Your task to perform on an android device: Open Reddit.com Image 0: 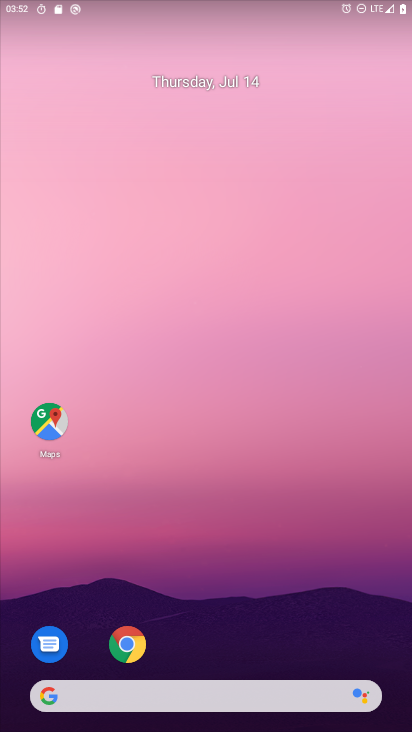
Step 0: drag from (284, 565) to (267, 144)
Your task to perform on an android device: Open Reddit.com Image 1: 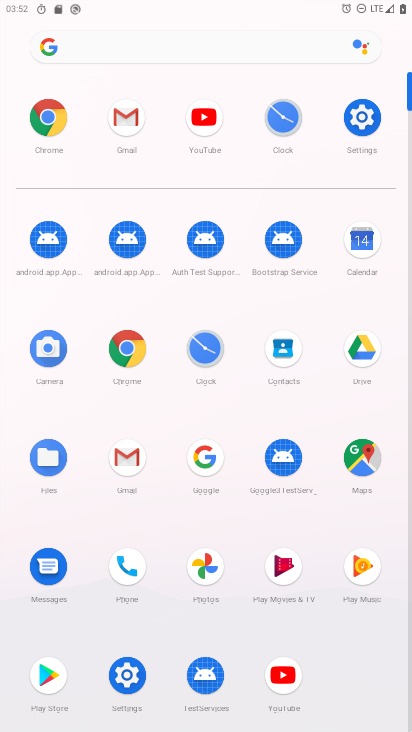
Step 1: click (51, 118)
Your task to perform on an android device: Open Reddit.com Image 2: 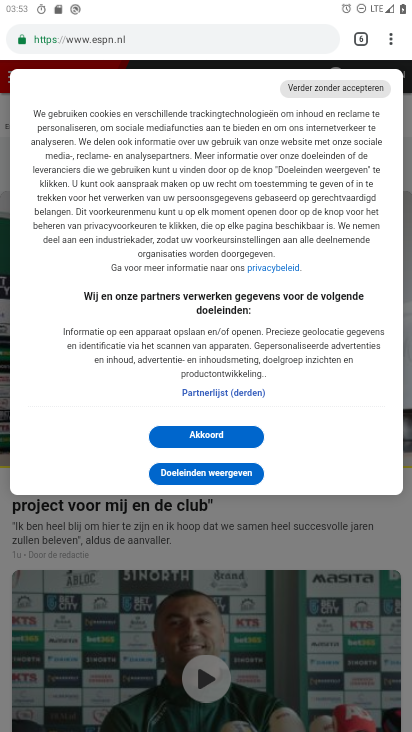
Step 2: click (154, 47)
Your task to perform on an android device: Open Reddit.com Image 3: 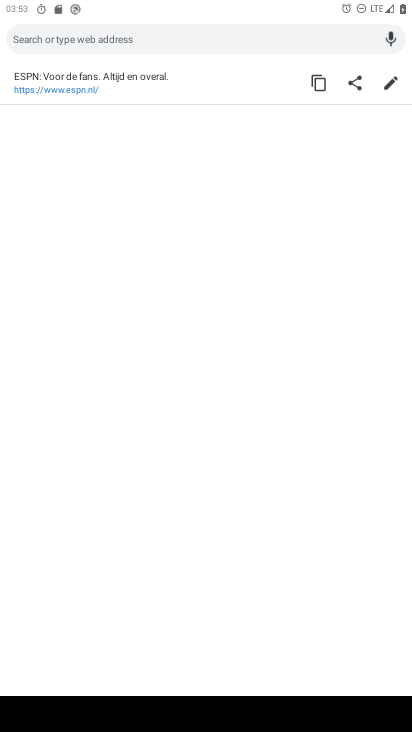
Step 3: type "reddit.com"
Your task to perform on an android device: Open Reddit.com Image 4: 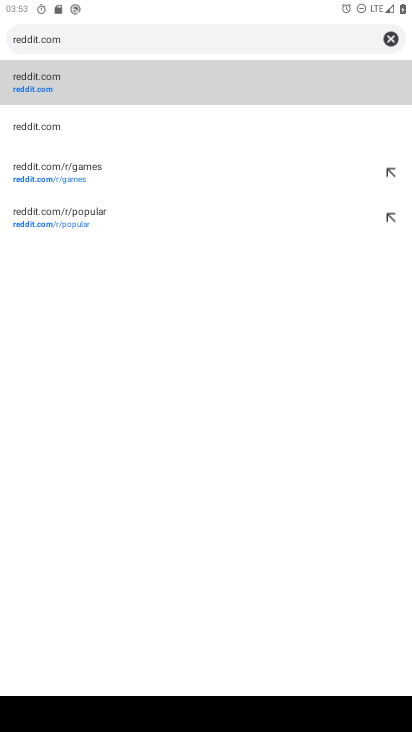
Step 4: click (49, 90)
Your task to perform on an android device: Open Reddit.com Image 5: 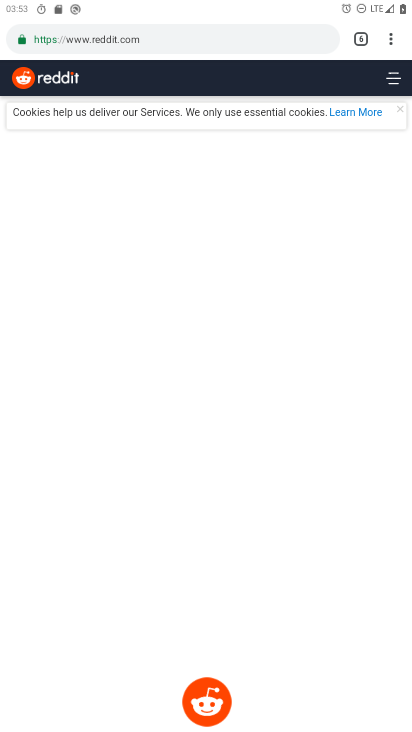
Step 5: task complete